Your task to perform on an android device: change the clock display to show seconds Image 0: 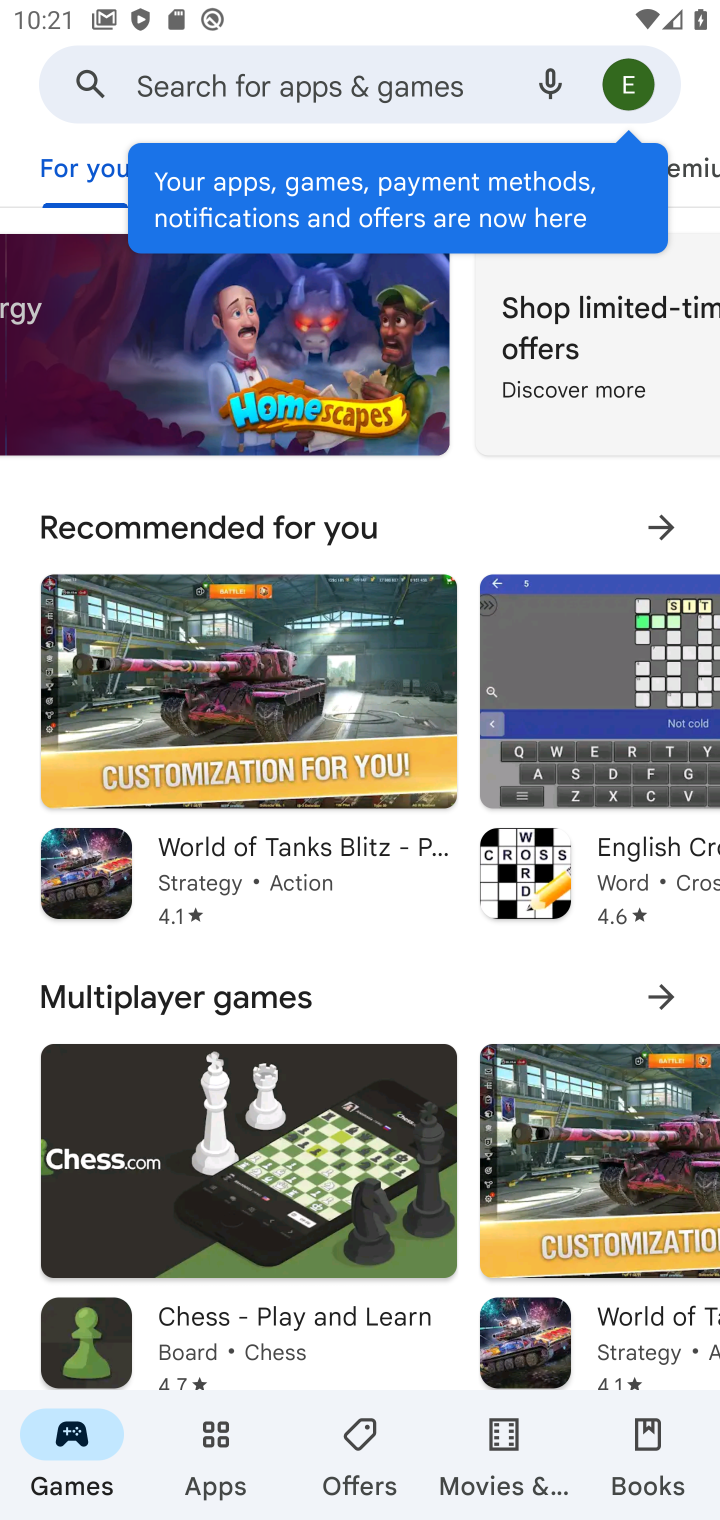
Step 0: press back button
Your task to perform on an android device: change the clock display to show seconds Image 1: 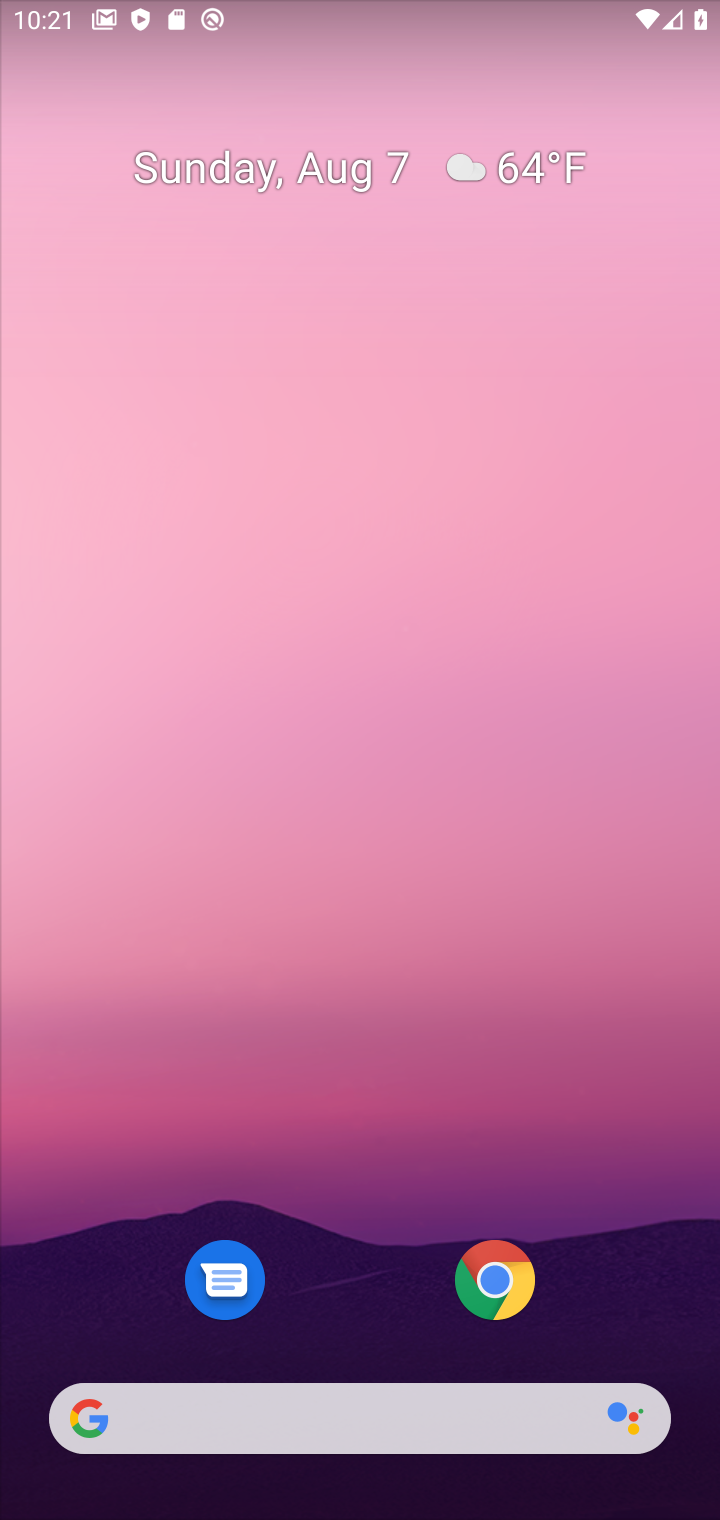
Step 1: drag from (394, 1319) to (377, 103)
Your task to perform on an android device: change the clock display to show seconds Image 2: 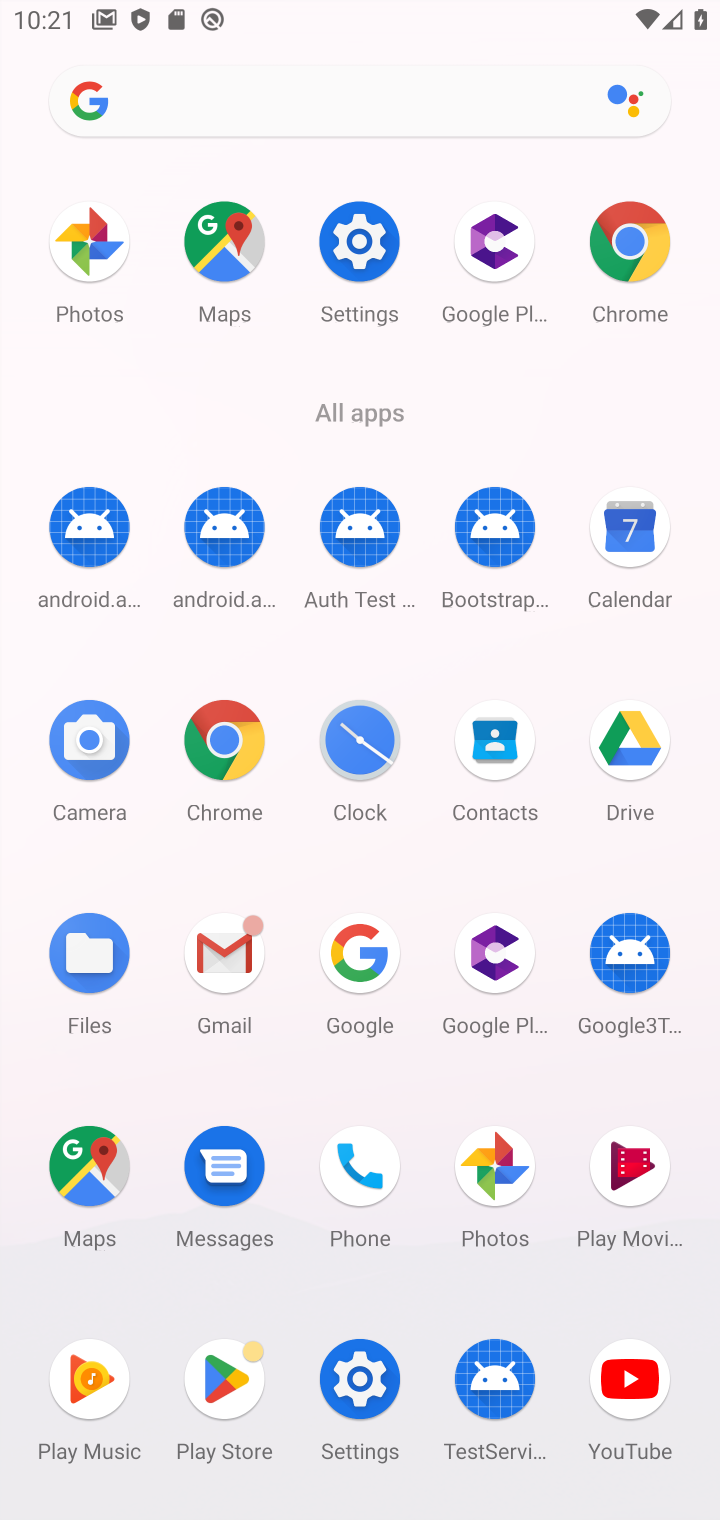
Step 2: click (346, 727)
Your task to perform on an android device: change the clock display to show seconds Image 3: 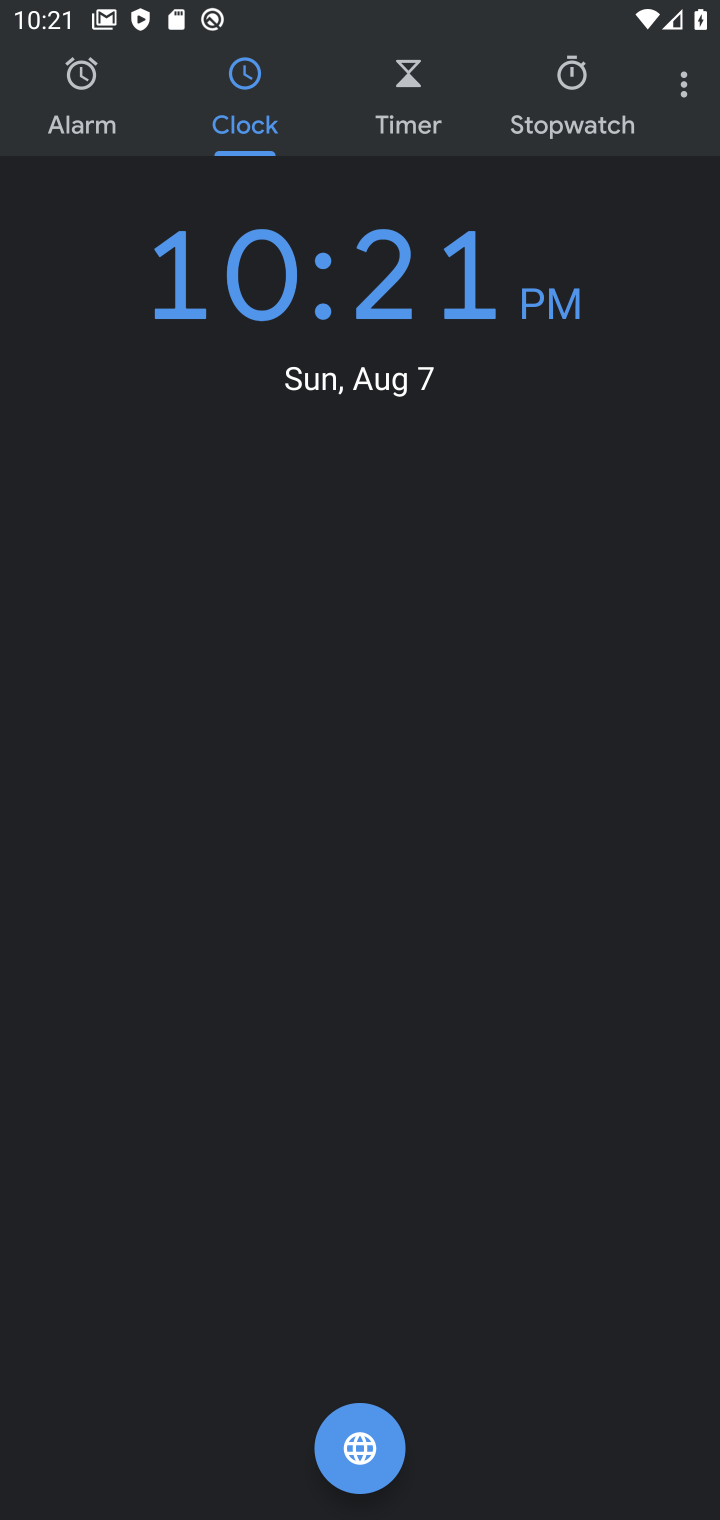
Step 3: click (679, 101)
Your task to perform on an android device: change the clock display to show seconds Image 4: 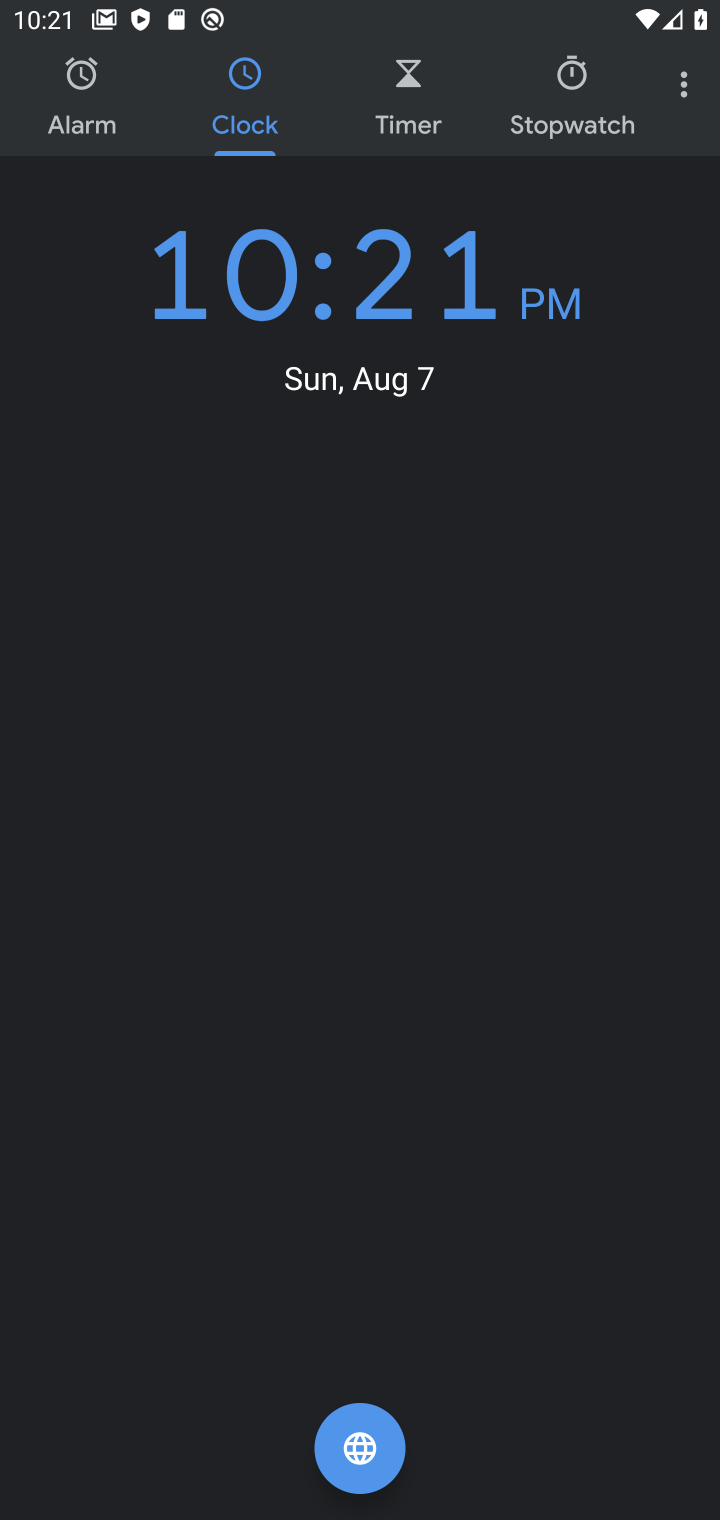
Step 4: click (682, 80)
Your task to perform on an android device: change the clock display to show seconds Image 5: 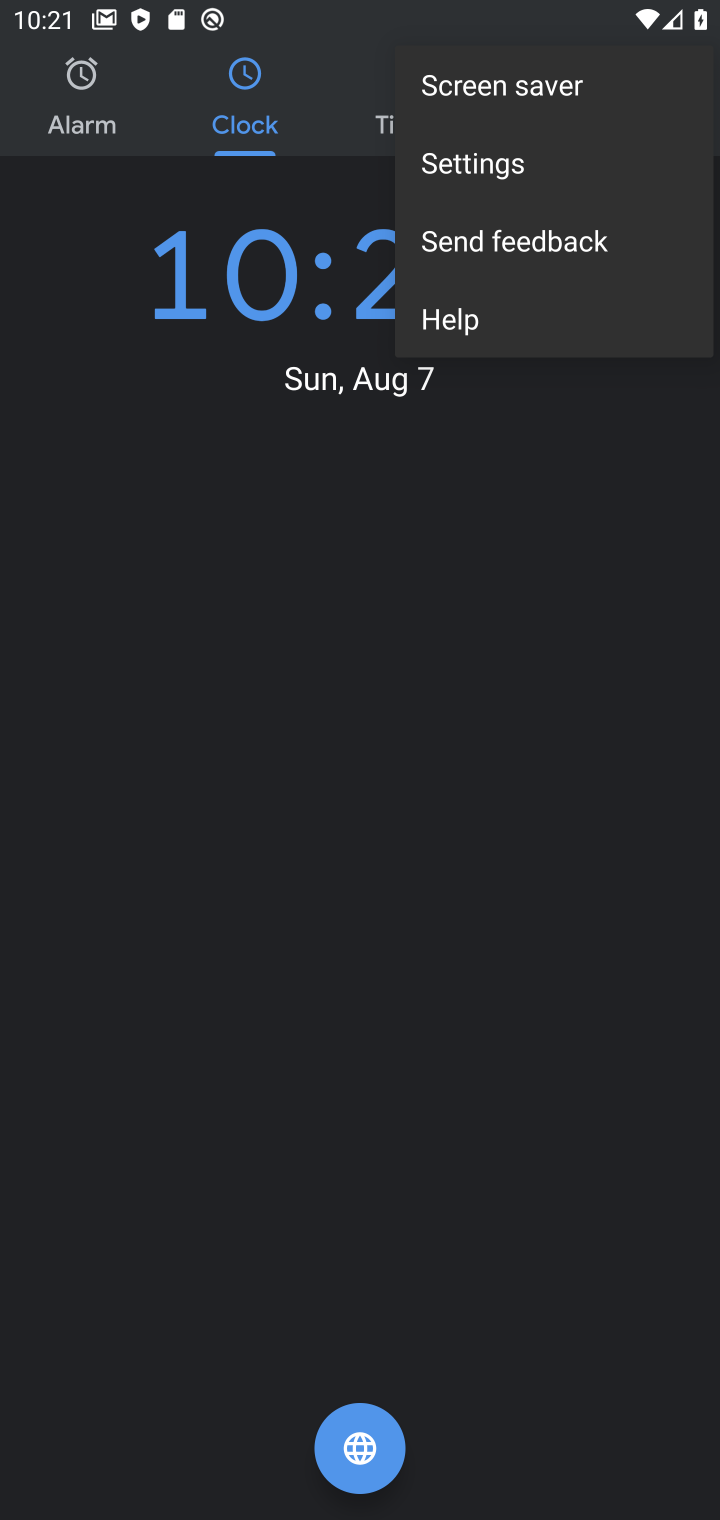
Step 5: click (494, 156)
Your task to perform on an android device: change the clock display to show seconds Image 6: 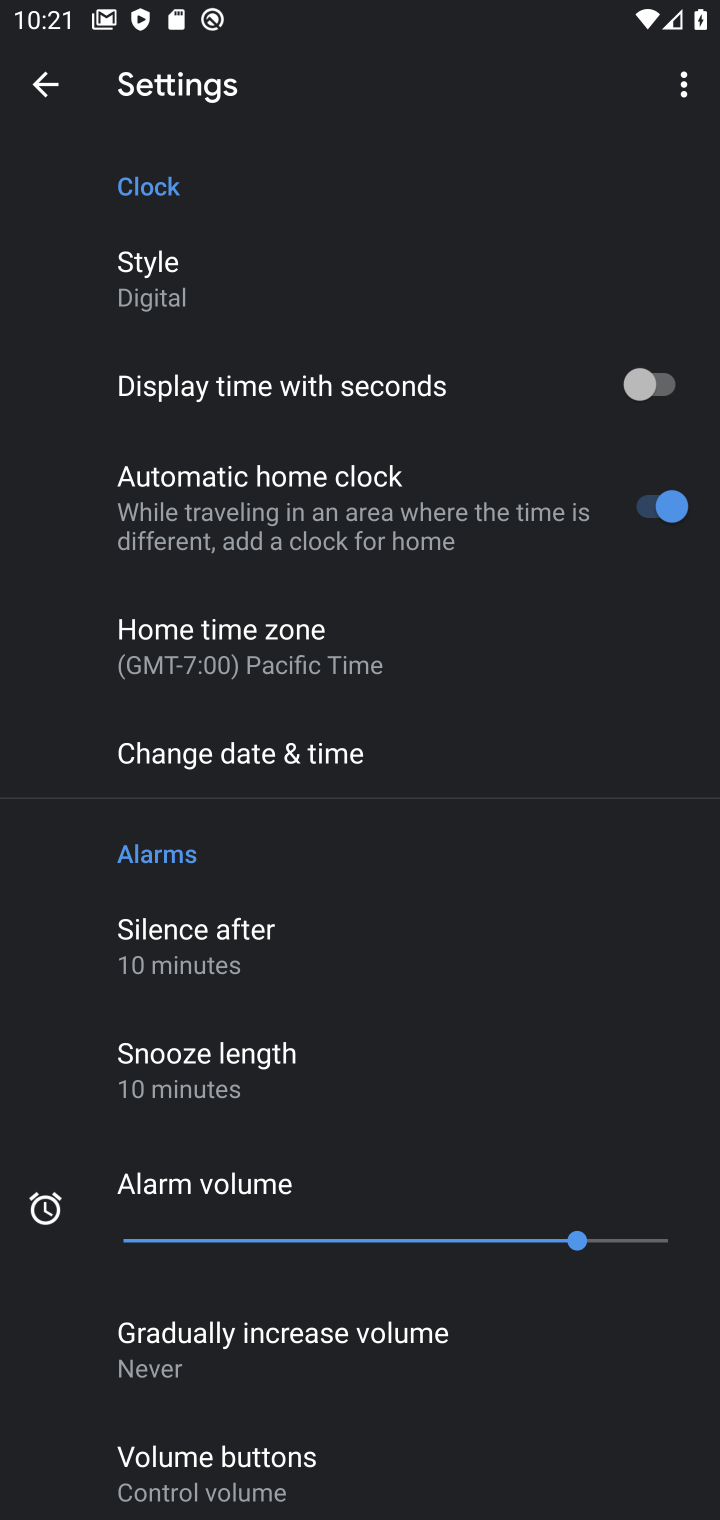
Step 6: drag from (323, 1218) to (364, 1448)
Your task to perform on an android device: change the clock display to show seconds Image 7: 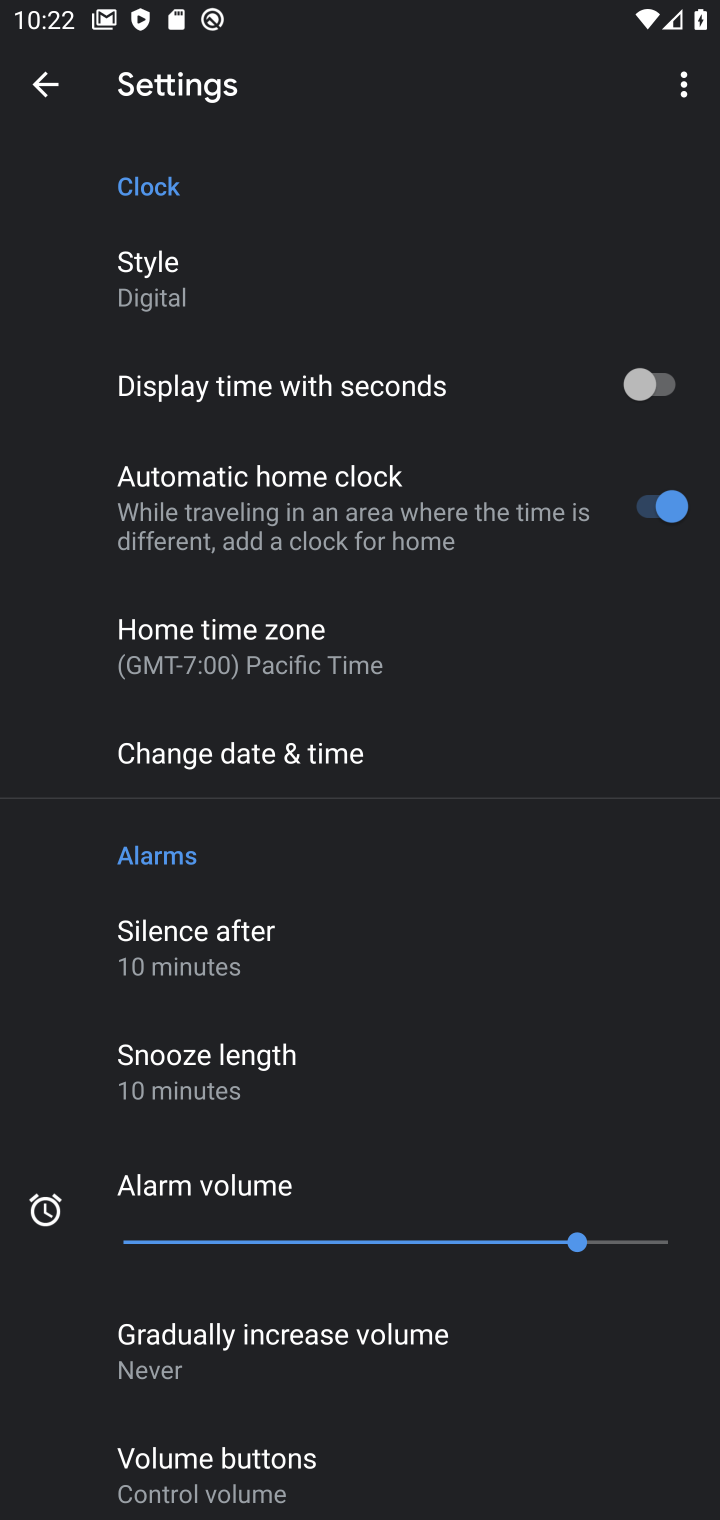
Step 7: click (658, 371)
Your task to perform on an android device: change the clock display to show seconds Image 8: 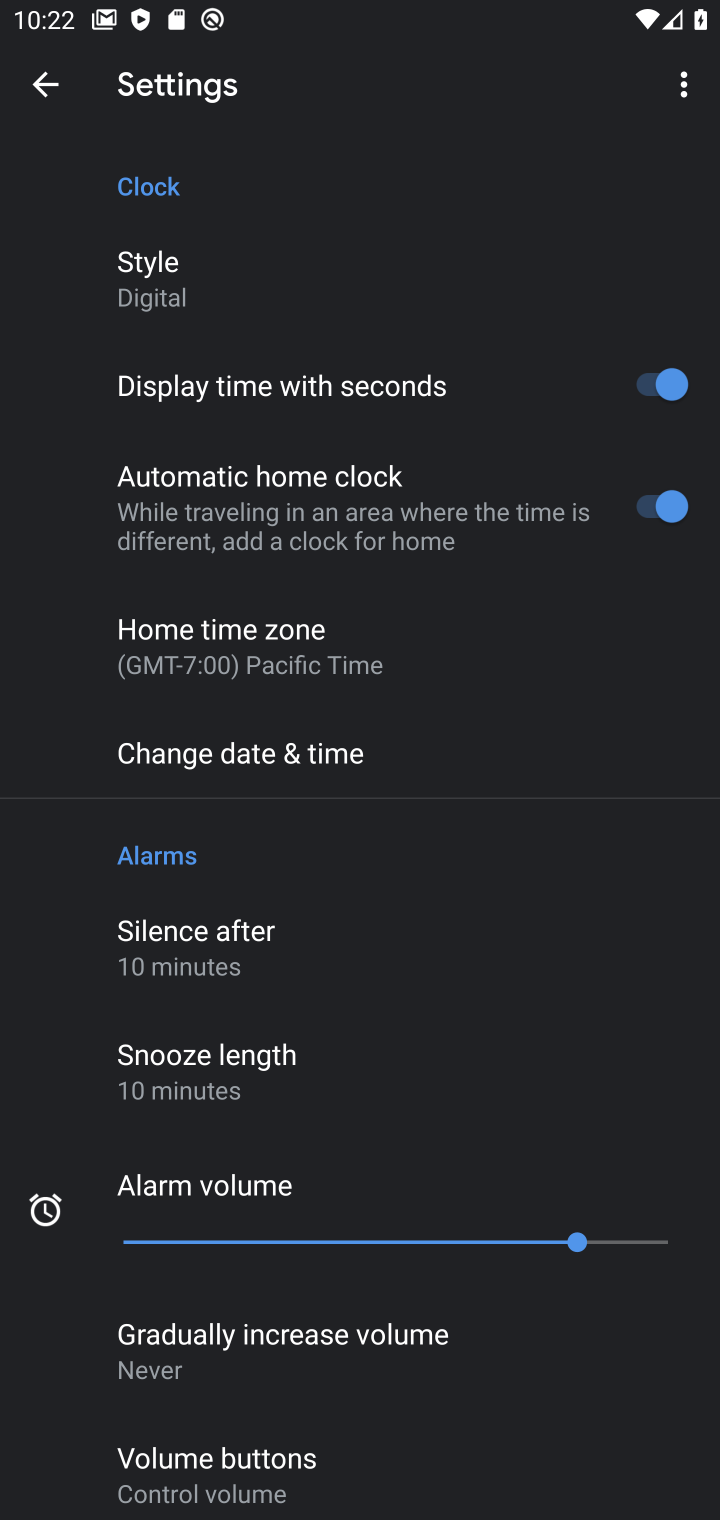
Step 8: click (327, 293)
Your task to perform on an android device: change the clock display to show seconds Image 9: 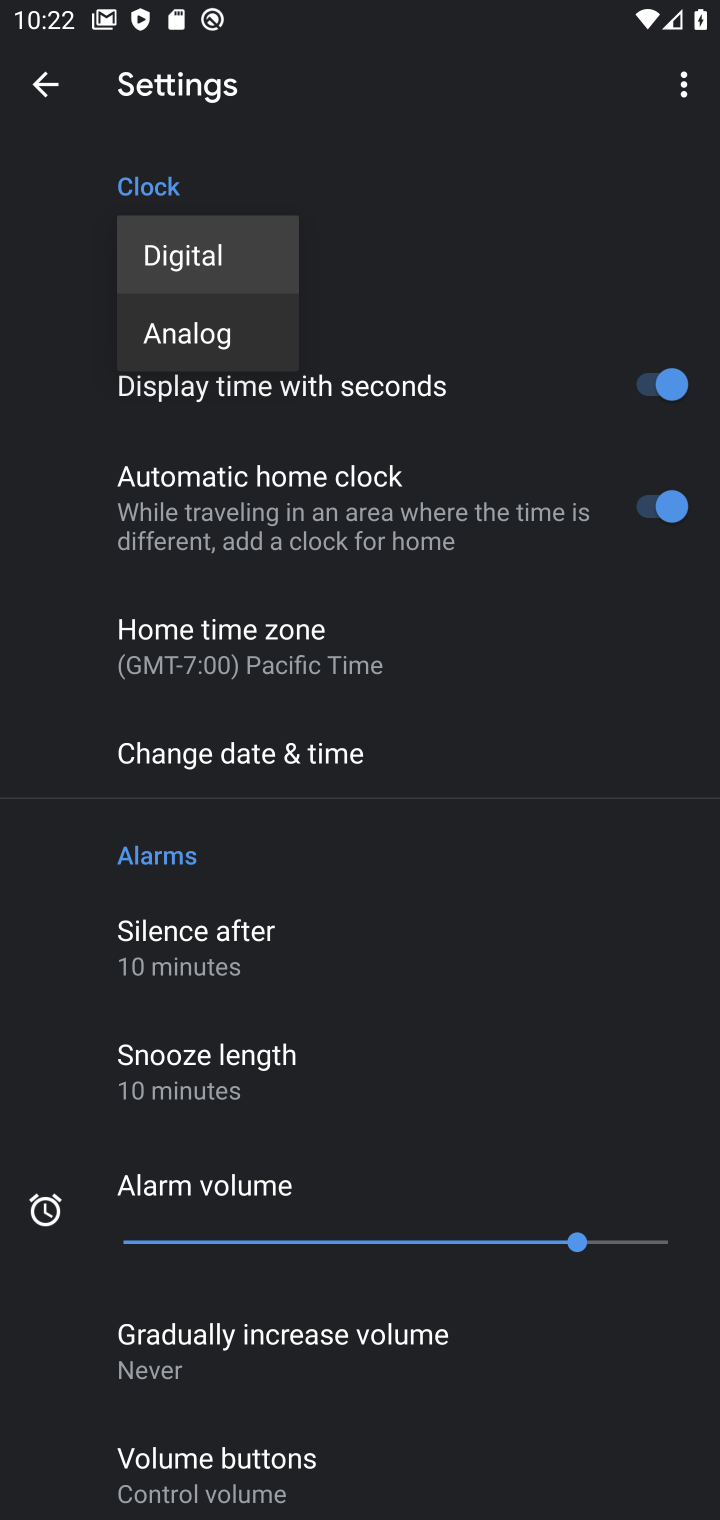
Step 9: click (201, 245)
Your task to perform on an android device: change the clock display to show seconds Image 10: 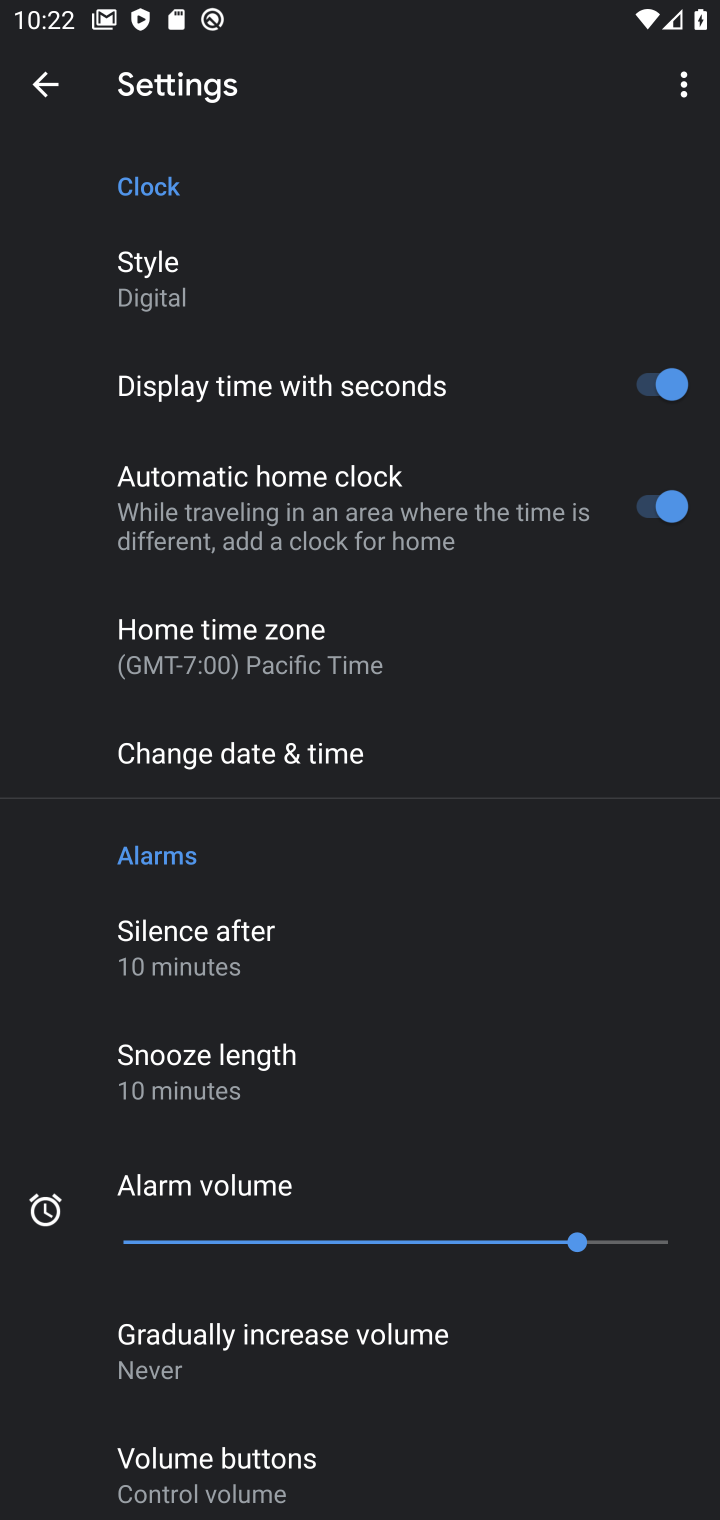
Step 10: task complete